Your task to perform on an android device: change your default location settings in chrome Image 0: 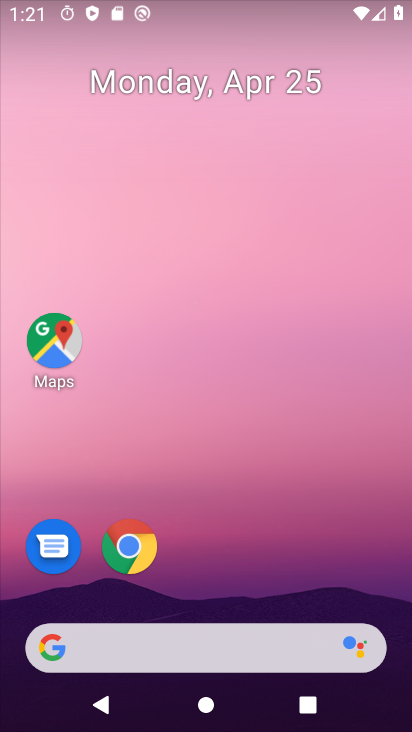
Step 0: click (142, 547)
Your task to perform on an android device: change your default location settings in chrome Image 1: 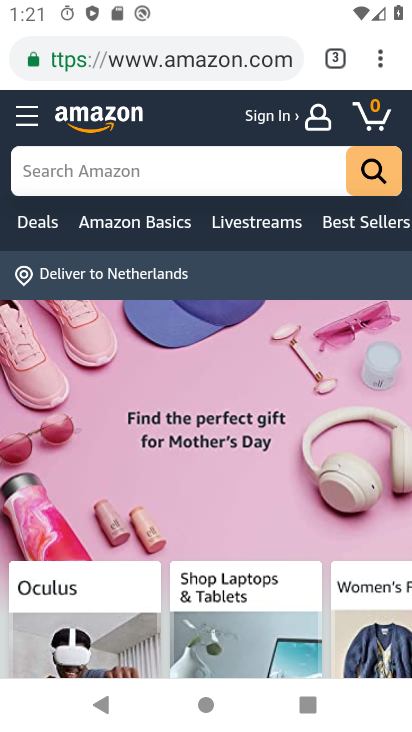
Step 1: drag from (373, 42) to (185, 580)
Your task to perform on an android device: change your default location settings in chrome Image 2: 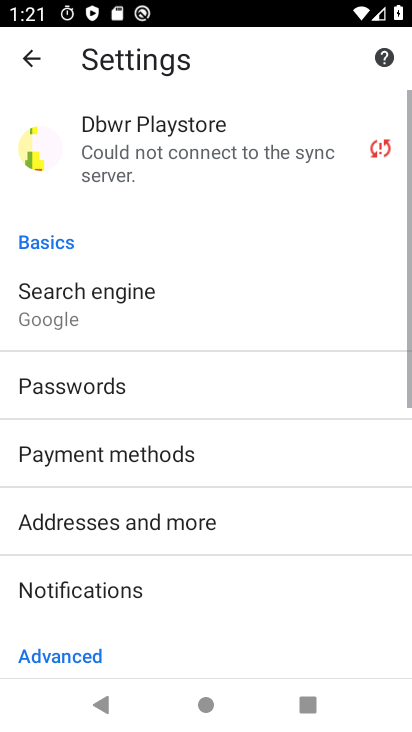
Step 2: drag from (176, 579) to (158, 132)
Your task to perform on an android device: change your default location settings in chrome Image 3: 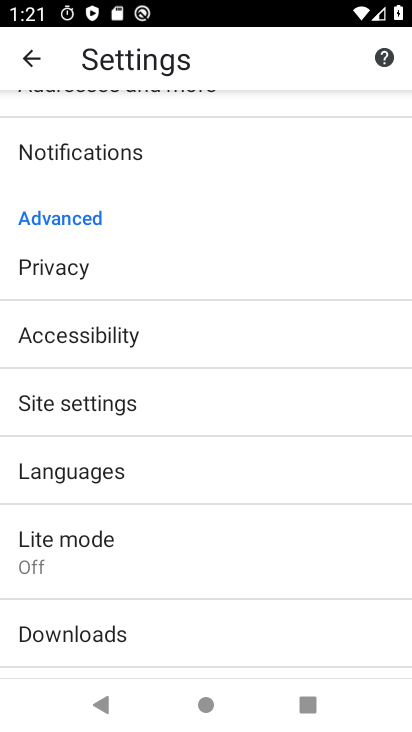
Step 3: drag from (85, 213) to (98, 590)
Your task to perform on an android device: change your default location settings in chrome Image 4: 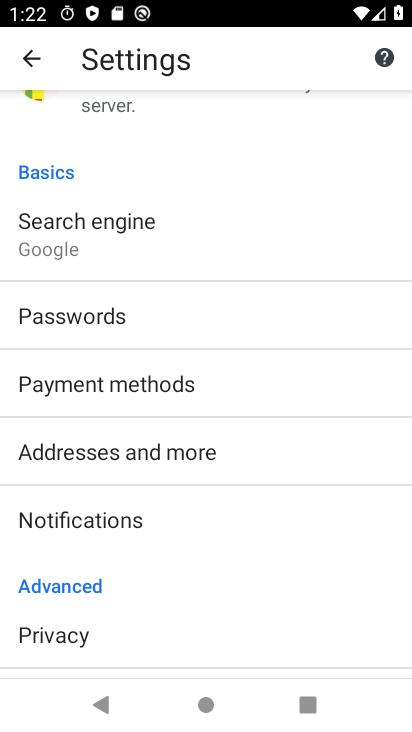
Step 4: click (83, 228)
Your task to perform on an android device: change your default location settings in chrome Image 5: 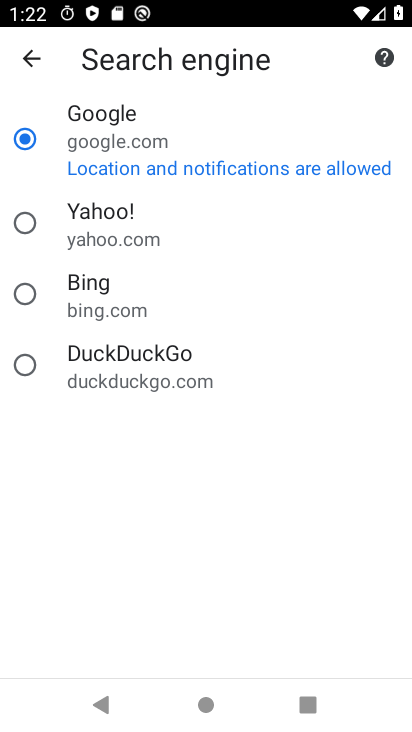
Step 5: click (22, 35)
Your task to perform on an android device: change your default location settings in chrome Image 6: 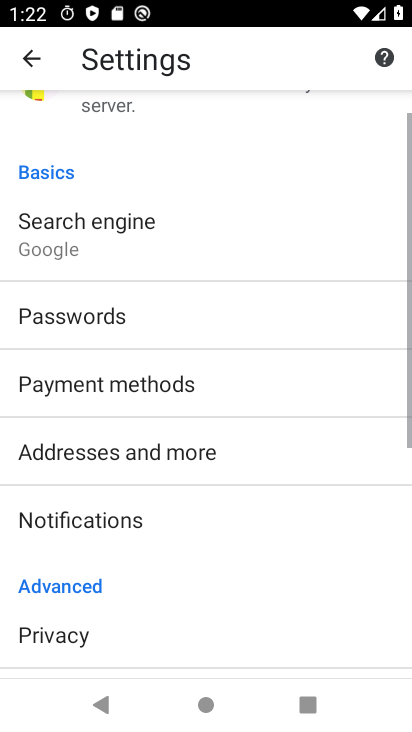
Step 6: drag from (42, 516) to (52, 268)
Your task to perform on an android device: change your default location settings in chrome Image 7: 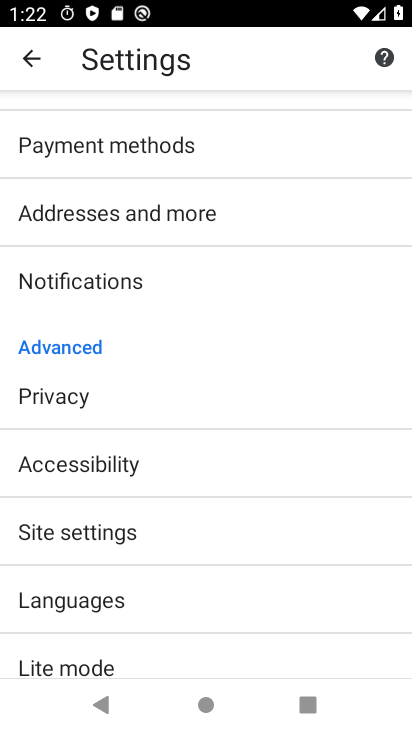
Step 7: click (104, 528)
Your task to perform on an android device: change your default location settings in chrome Image 8: 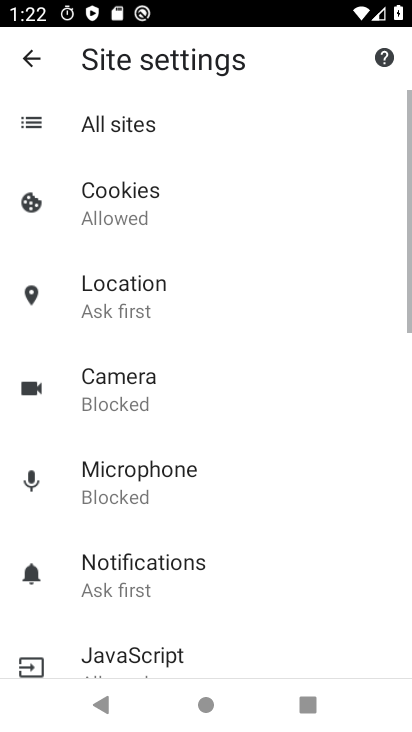
Step 8: click (111, 313)
Your task to perform on an android device: change your default location settings in chrome Image 9: 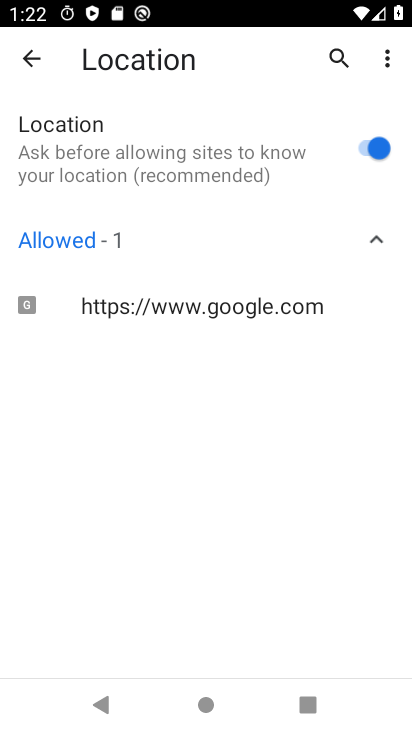
Step 9: task complete